Your task to perform on an android device: Show me popular videos on Youtube Image 0: 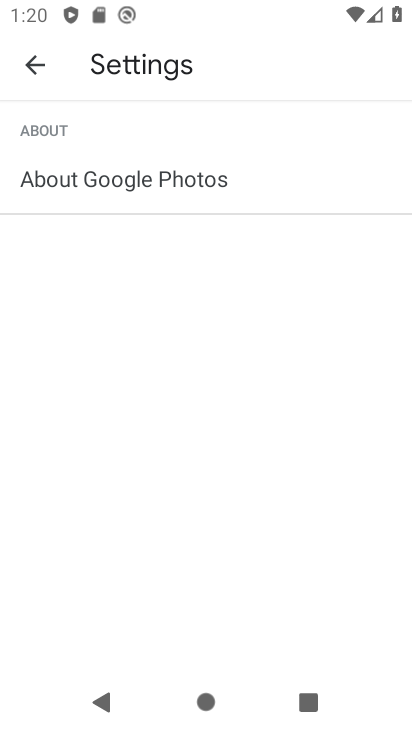
Step 0: press back button
Your task to perform on an android device: Show me popular videos on Youtube Image 1: 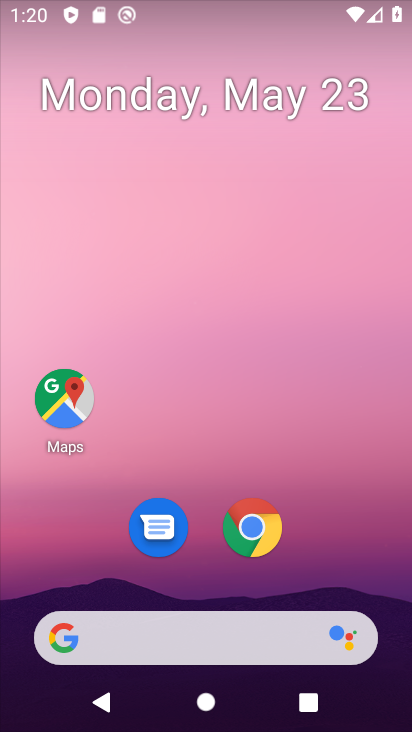
Step 1: drag from (204, 593) to (256, 96)
Your task to perform on an android device: Show me popular videos on Youtube Image 2: 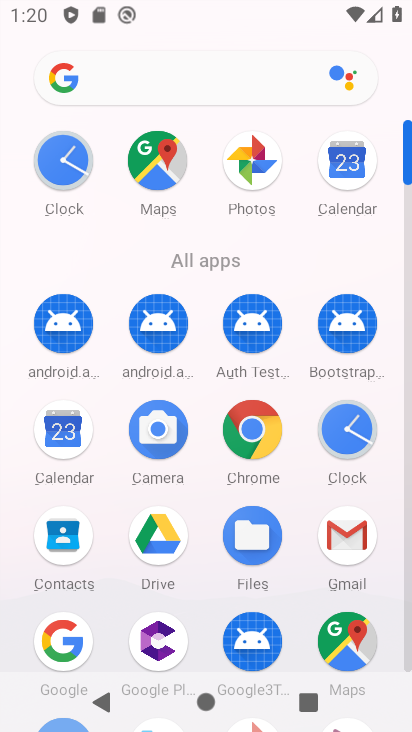
Step 2: drag from (224, 585) to (269, 140)
Your task to perform on an android device: Show me popular videos on Youtube Image 3: 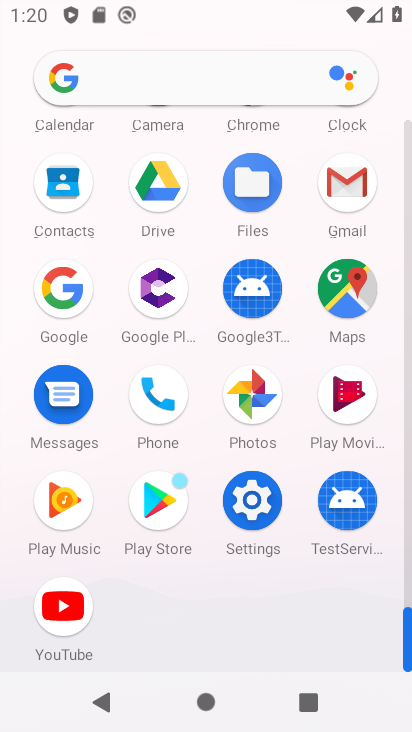
Step 3: click (60, 605)
Your task to perform on an android device: Show me popular videos on Youtube Image 4: 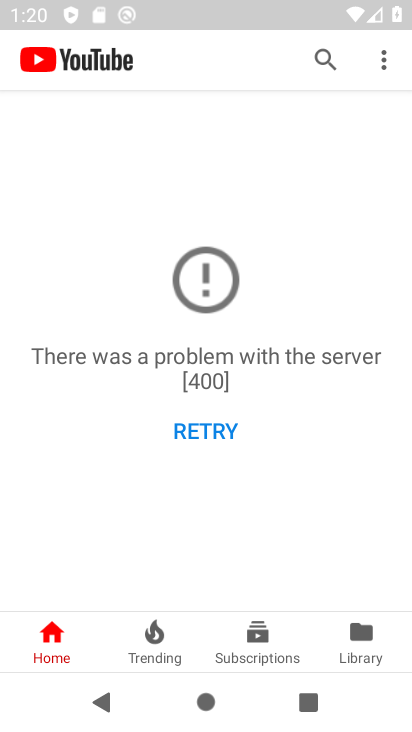
Step 4: task complete